Your task to perform on an android device: change your default location settings in chrome Image 0: 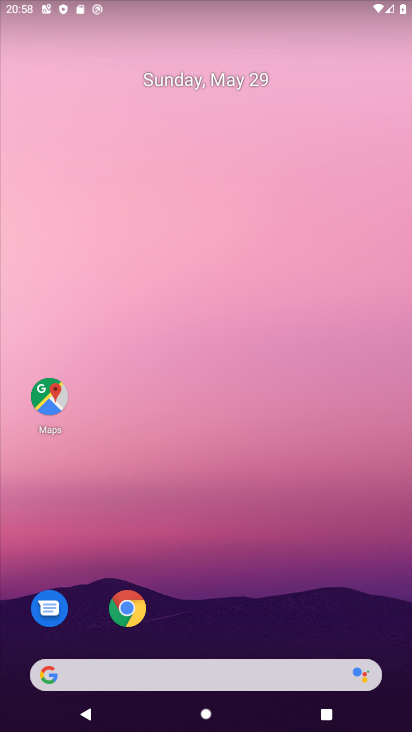
Step 0: drag from (347, 598) to (342, 234)
Your task to perform on an android device: change your default location settings in chrome Image 1: 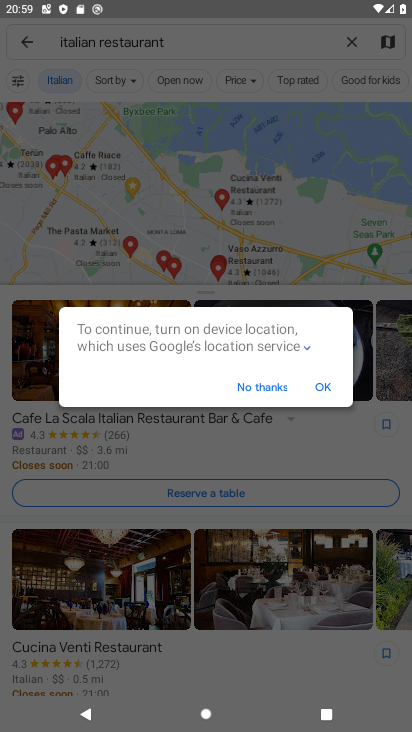
Step 1: press home button
Your task to perform on an android device: change your default location settings in chrome Image 2: 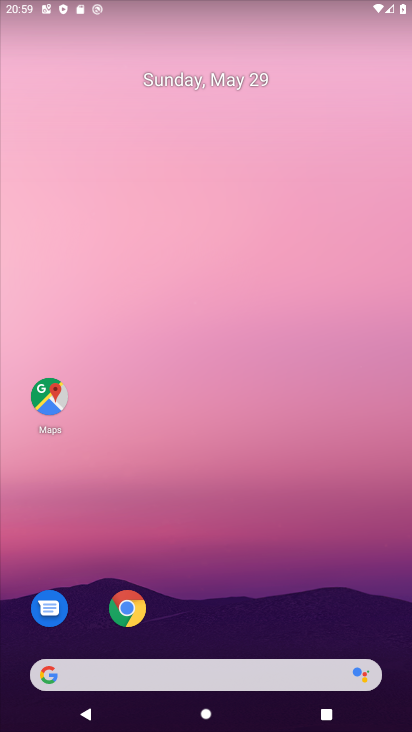
Step 2: drag from (340, 608) to (347, 221)
Your task to perform on an android device: change your default location settings in chrome Image 3: 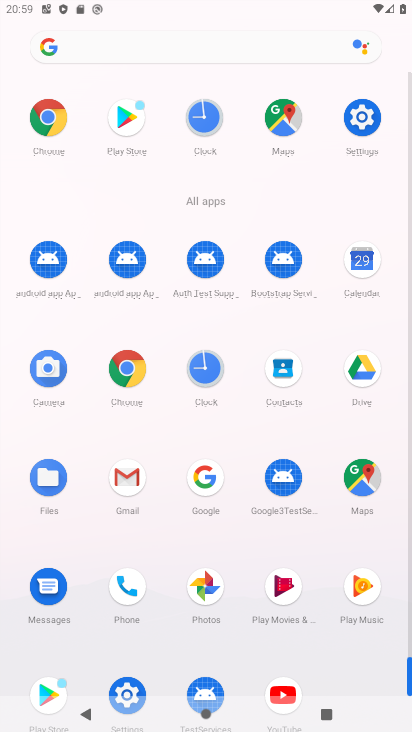
Step 3: click (137, 380)
Your task to perform on an android device: change your default location settings in chrome Image 4: 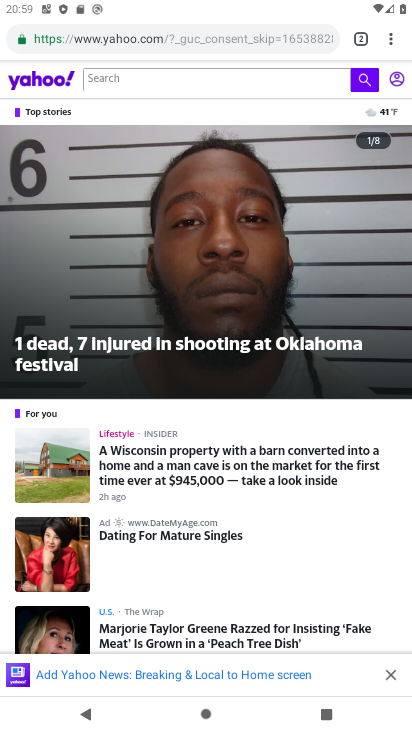
Step 4: click (390, 47)
Your task to perform on an android device: change your default location settings in chrome Image 5: 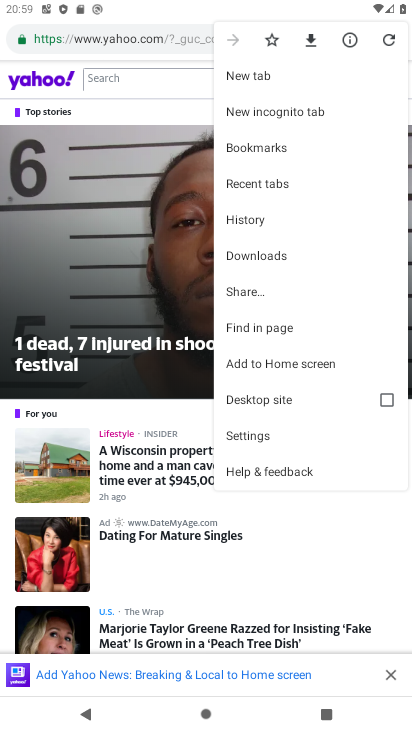
Step 5: click (279, 440)
Your task to perform on an android device: change your default location settings in chrome Image 6: 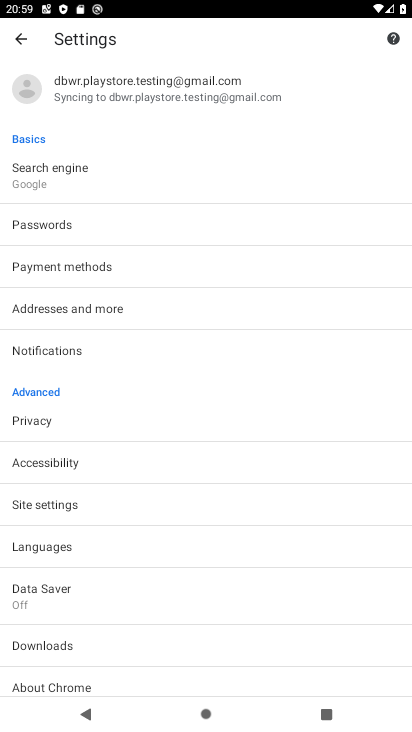
Step 6: click (207, 496)
Your task to perform on an android device: change your default location settings in chrome Image 7: 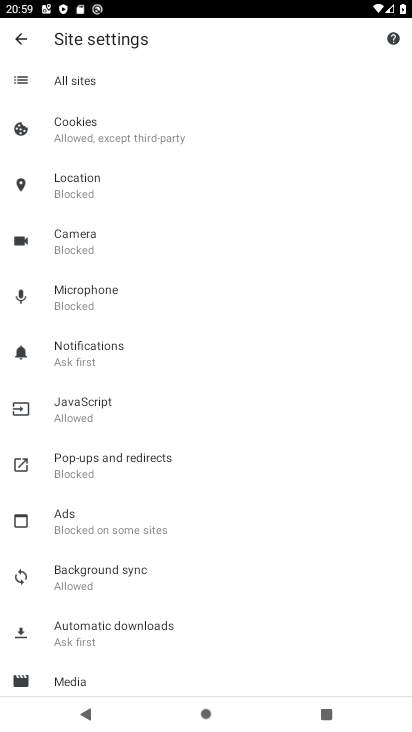
Step 7: click (104, 182)
Your task to perform on an android device: change your default location settings in chrome Image 8: 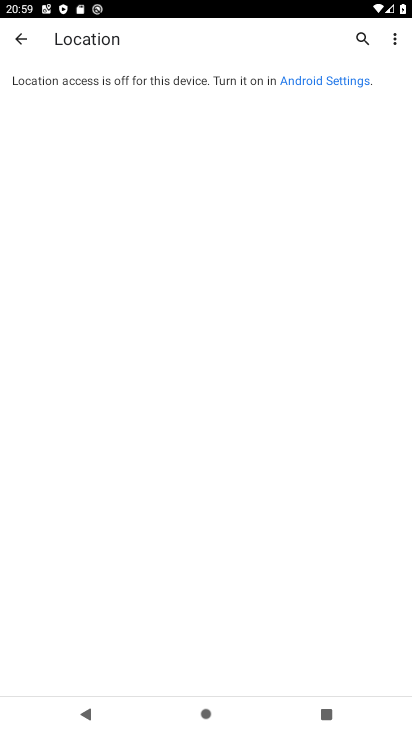
Step 8: click (316, 81)
Your task to perform on an android device: change your default location settings in chrome Image 9: 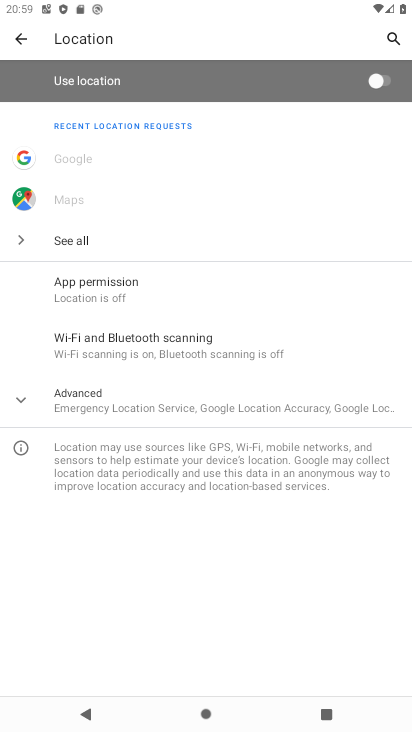
Step 9: click (375, 88)
Your task to perform on an android device: change your default location settings in chrome Image 10: 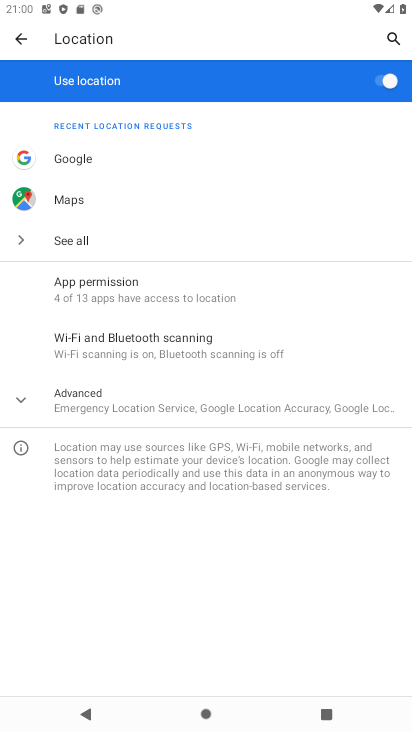
Step 10: task complete